Your task to perform on an android device: Go to notification settings Image 0: 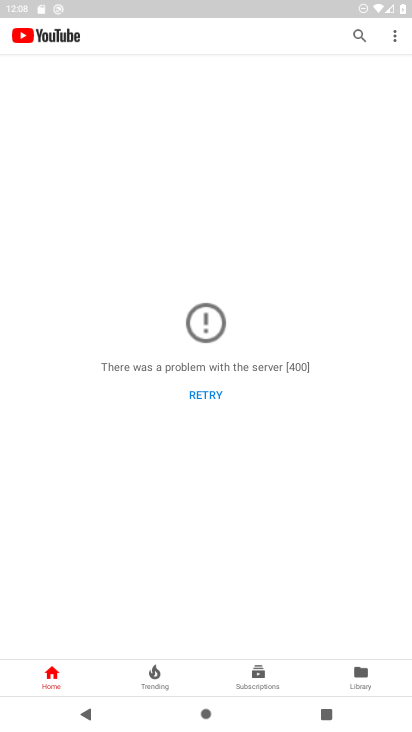
Step 0: press home button
Your task to perform on an android device: Go to notification settings Image 1: 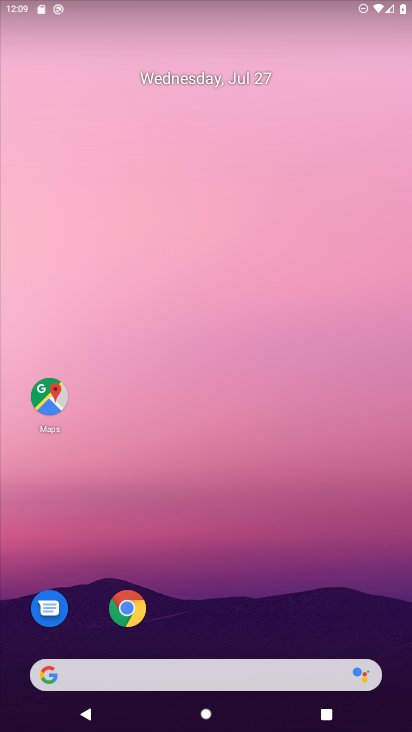
Step 1: drag from (329, 584) to (343, 149)
Your task to perform on an android device: Go to notification settings Image 2: 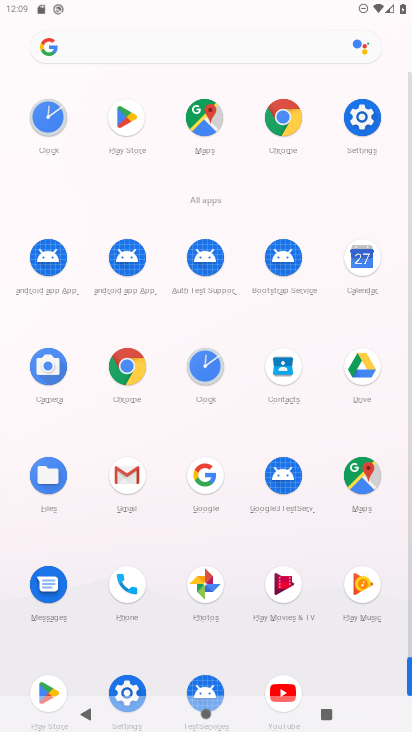
Step 2: click (362, 125)
Your task to perform on an android device: Go to notification settings Image 3: 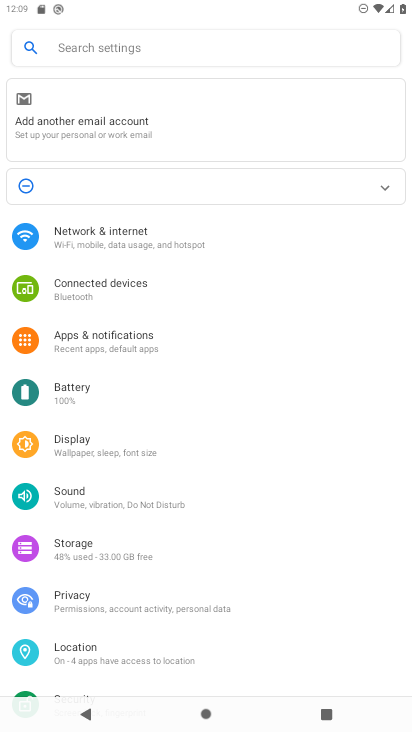
Step 3: drag from (370, 430) to (360, 364)
Your task to perform on an android device: Go to notification settings Image 4: 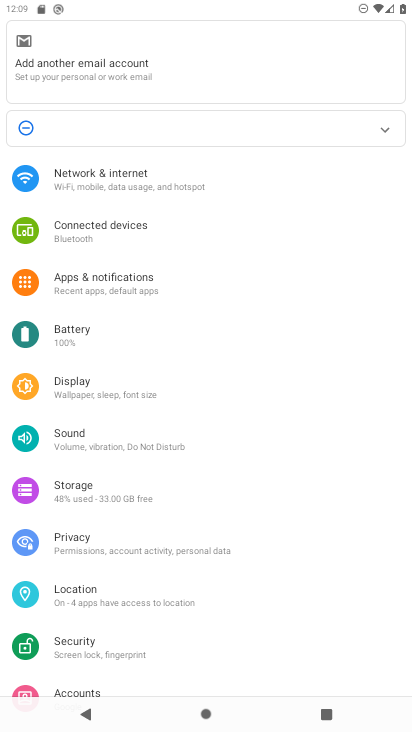
Step 4: drag from (344, 471) to (350, 399)
Your task to perform on an android device: Go to notification settings Image 5: 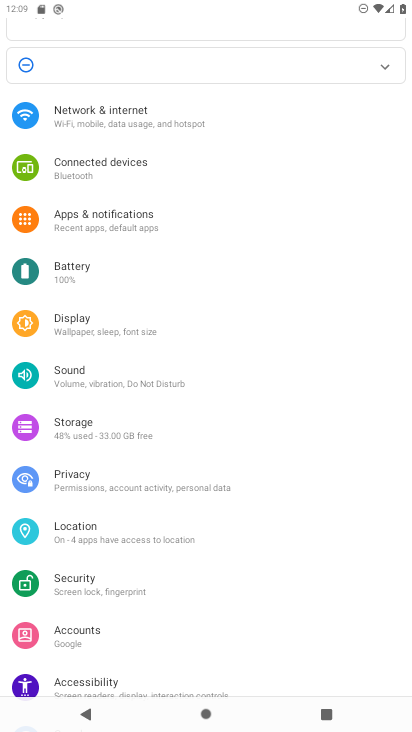
Step 5: drag from (324, 494) to (336, 412)
Your task to perform on an android device: Go to notification settings Image 6: 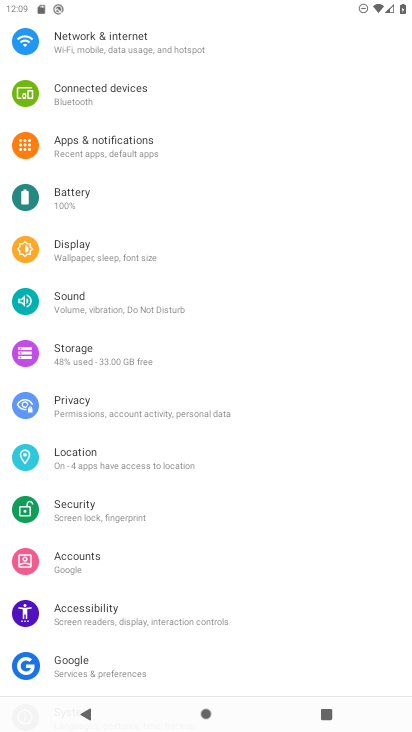
Step 6: drag from (341, 527) to (336, 420)
Your task to perform on an android device: Go to notification settings Image 7: 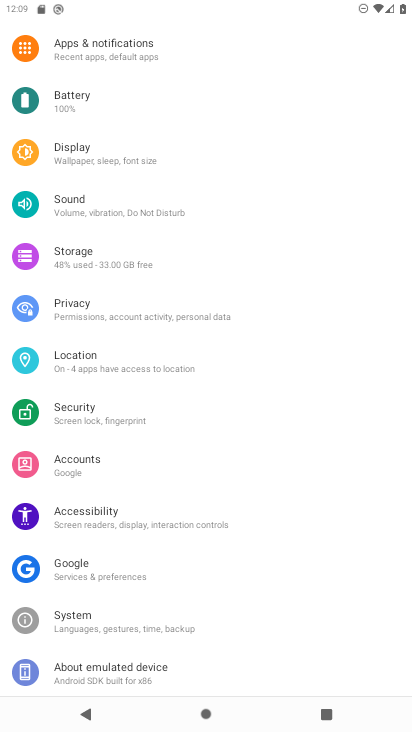
Step 7: drag from (329, 536) to (333, 467)
Your task to perform on an android device: Go to notification settings Image 8: 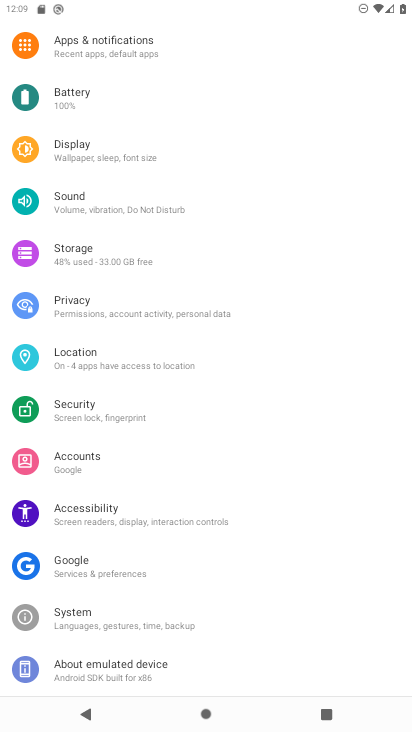
Step 8: drag from (321, 284) to (321, 411)
Your task to perform on an android device: Go to notification settings Image 9: 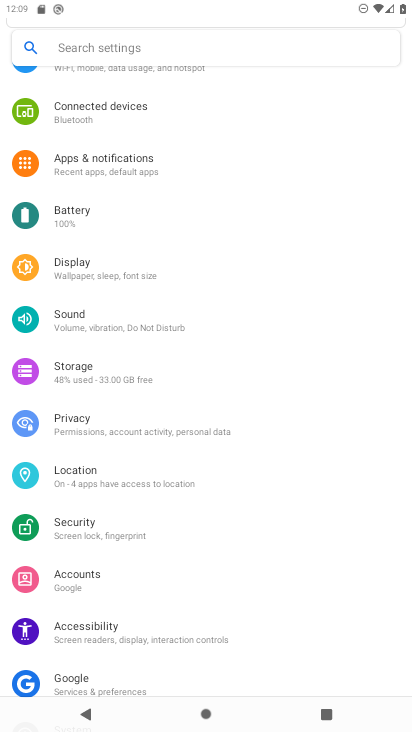
Step 9: drag from (314, 223) to (313, 368)
Your task to perform on an android device: Go to notification settings Image 10: 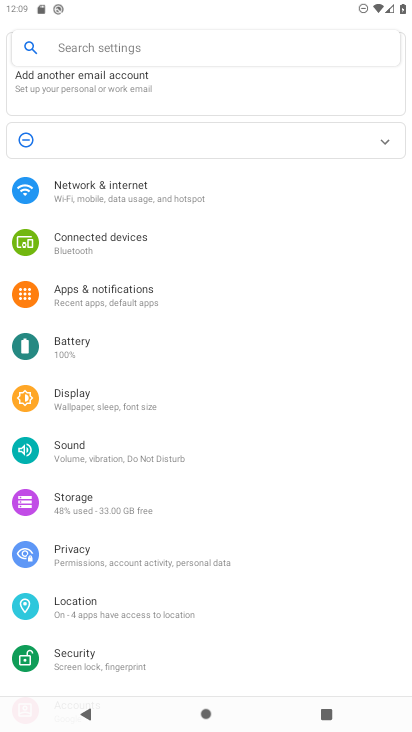
Step 10: click (198, 293)
Your task to perform on an android device: Go to notification settings Image 11: 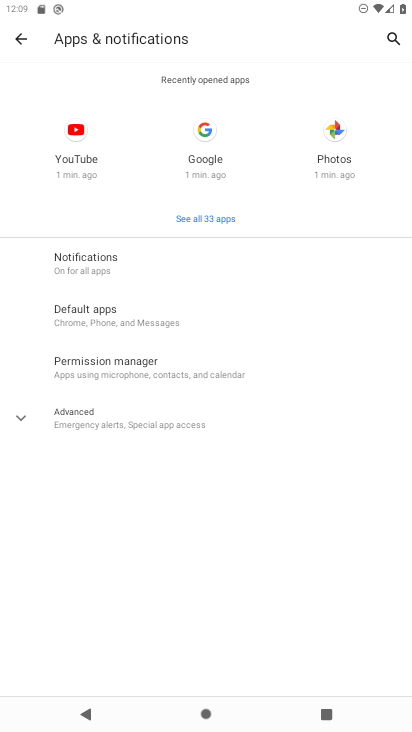
Step 11: click (147, 268)
Your task to perform on an android device: Go to notification settings Image 12: 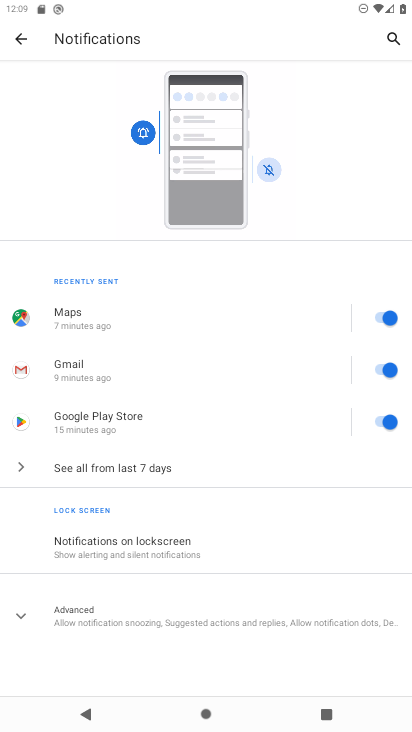
Step 12: task complete